Your task to perform on an android device: turn off notifications settings in the gmail app Image 0: 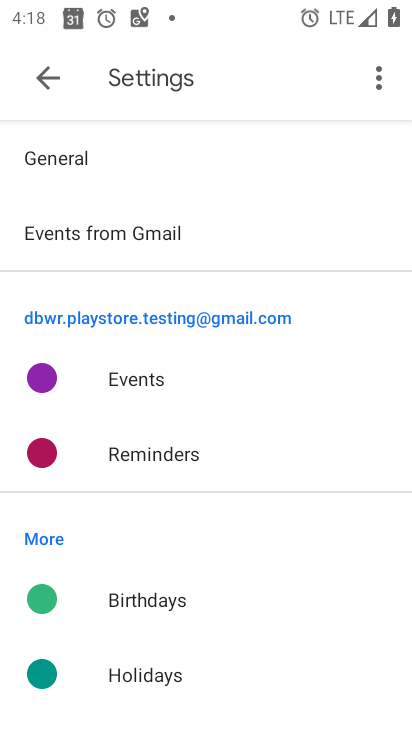
Step 0: press home button
Your task to perform on an android device: turn off notifications settings in the gmail app Image 1: 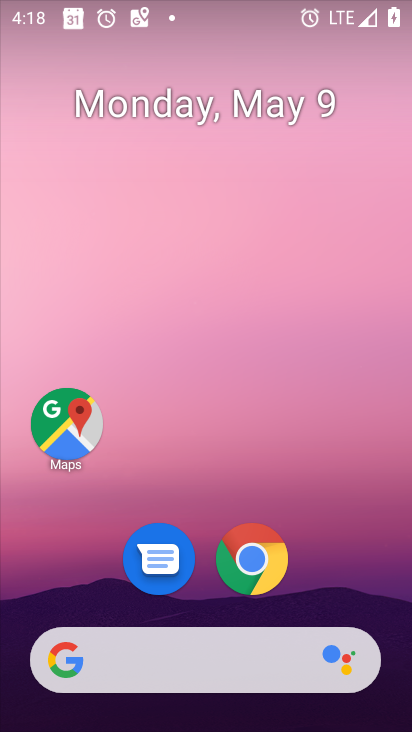
Step 1: drag from (206, 721) to (202, 240)
Your task to perform on an android device: turn off notifications settings in the gmail app Image 2: 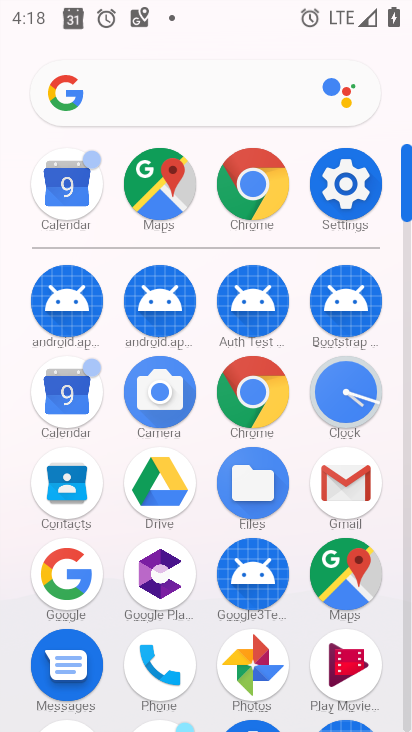
Step 2: click (341, 487)
Your task to perform on an android device: turn off notifications settings in the gmail app Image 3: 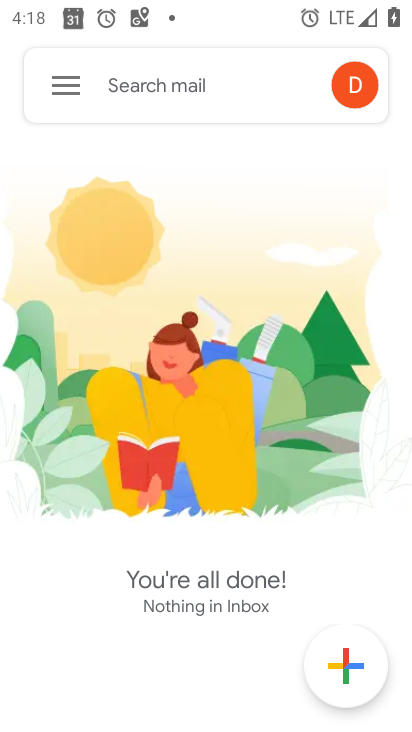
Step 3: click (53, 80)
Your task to perform on an android device: turn off notifications settings in the gmail app Image 4: 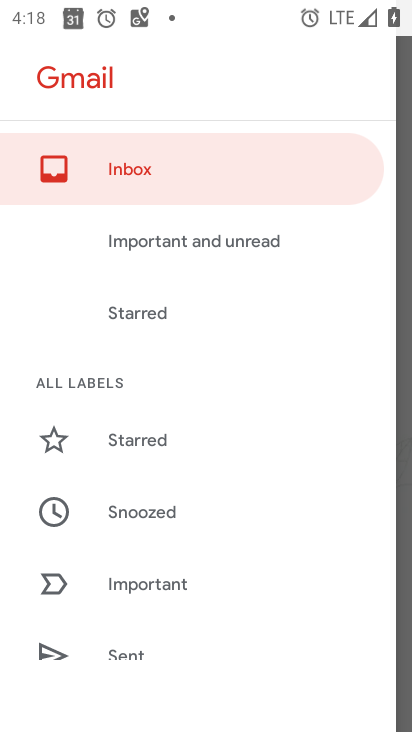
Step 4: drag from (163, 652) to (176, 243)
Your task to perform on an android device: turn off notifications settings in the gmail app Image 5: 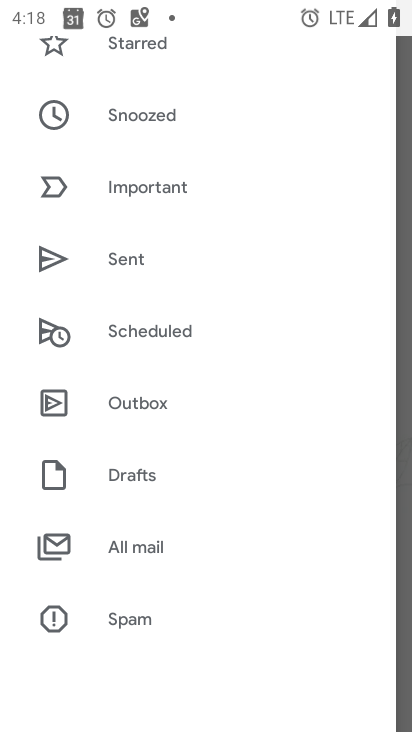
Step 5: drag from (166, 636) to (168, 263)
Your task to perform on an android device: turn off notifications settings in the gmail app Image 6: 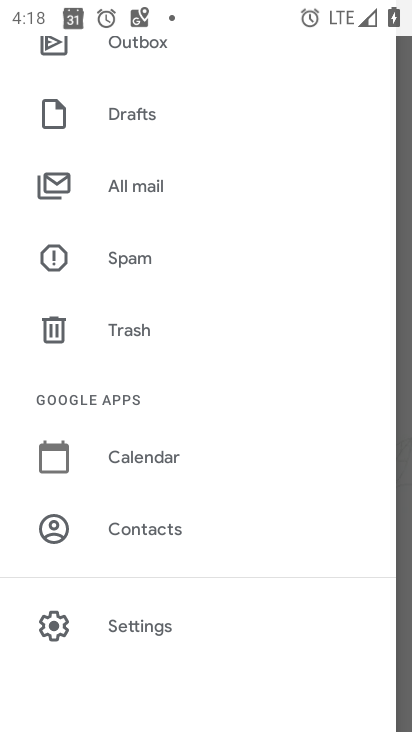
Step 6: click (152, 626)
Your task to perform on an android device: turn off notifications settings in the gmail app Image 7: 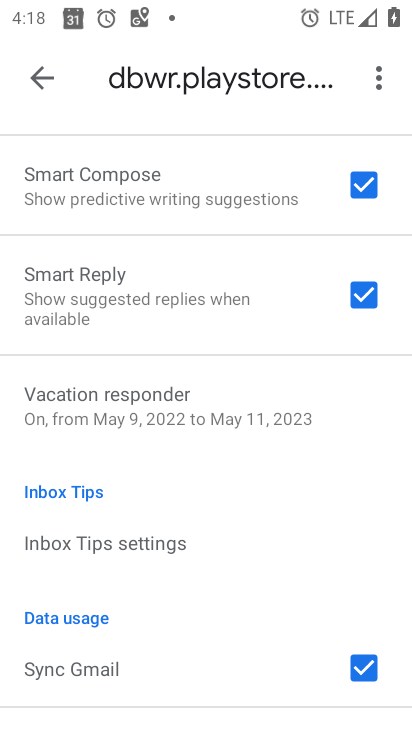
Step 7: drag from (189, 607) to (225, 670)
Your task to perform on an android device: turn off notifications settings in the gmail app Image 8: 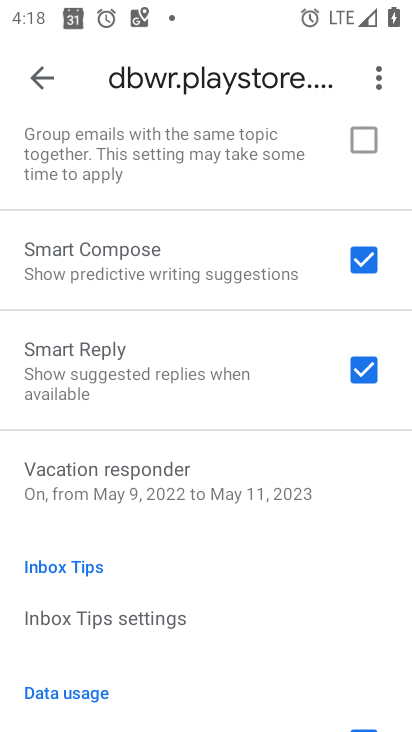
Step 8: drag from (212, 184) to (218, 591)
Your task to perform on an android device: turn off notifications settings in the gmail app Image 9: 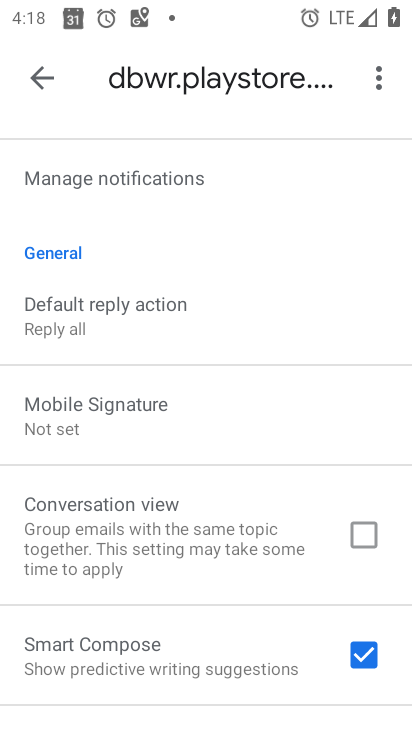
Step 9: drag from (222, 247) to (210, 669)
Your task to perform on an android device: turn off notifications settings in the gmail app Image 10: 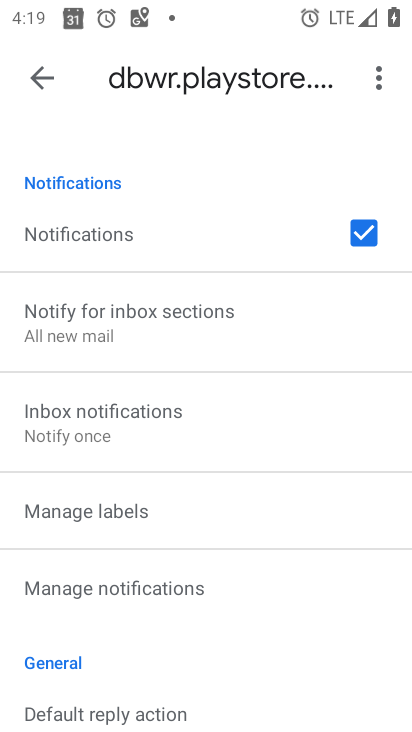
Step 10: click (364, 235)
Your task to perform on an android device: turn off notifications settings in the gmail app Image 11: 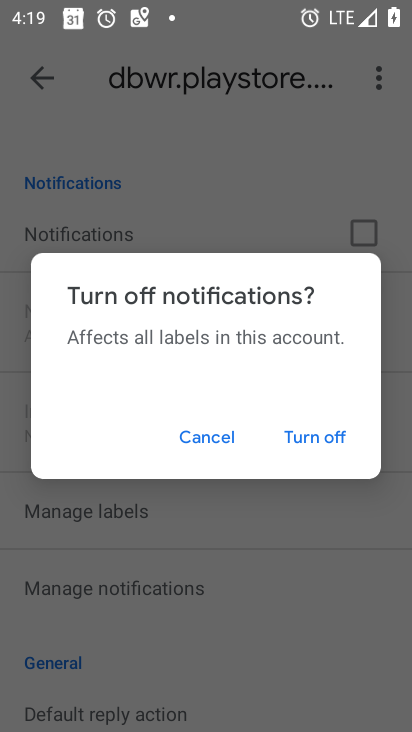
Step 11: click (323, 438)
Your task to perform on an android device: turn off notifications settings in the gmail app Image 12: 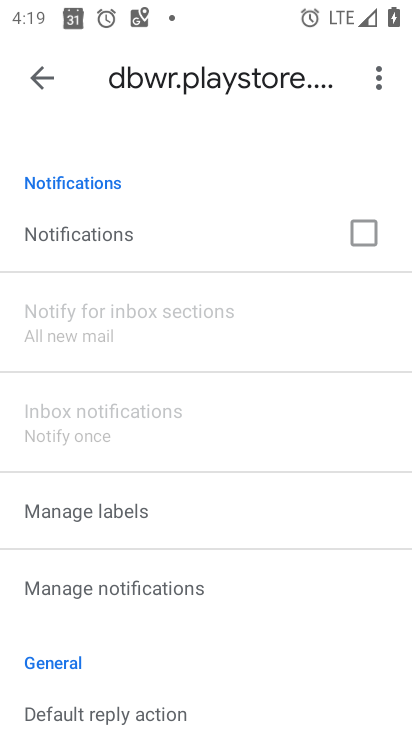
Step 12: task complete